Your task to perform on an android device: Go to network settings Image 0: 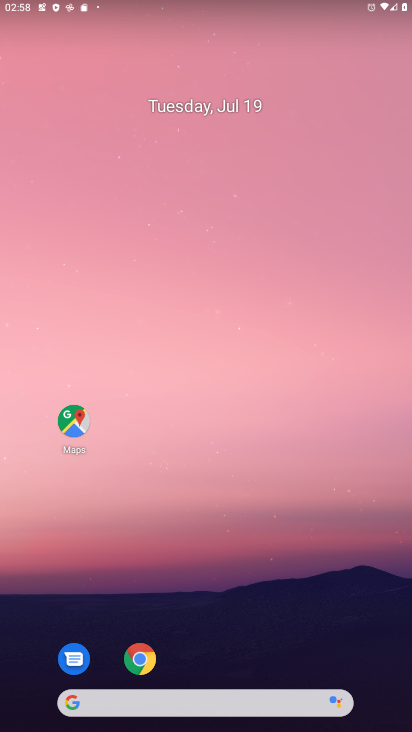
Step 0: drag from (294, 583) to (300, 11)
Your task to perform on an android device: Go to network settings Image 1: 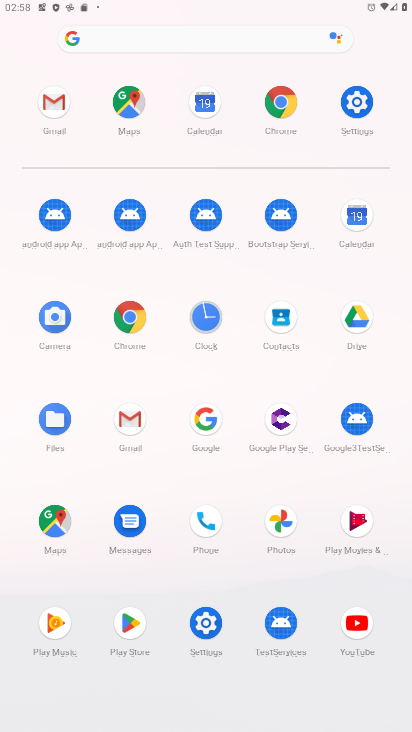
Step 1: click (192, 623)
Your task to perform on an android device: Go to network settings Image 2: 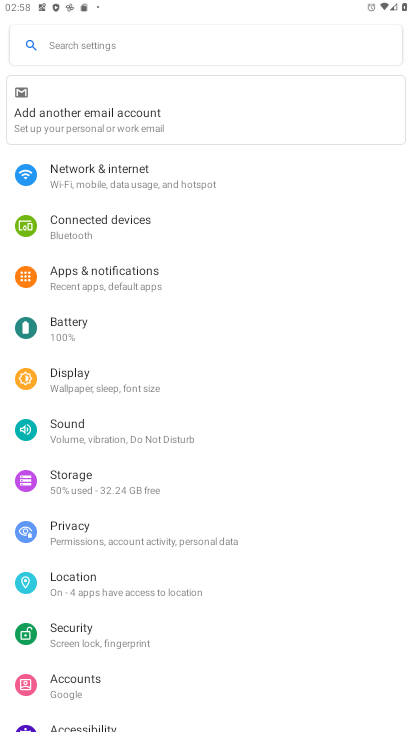
Step 2: click (66, 173)
Your task to perform on an android device: Go to network settings Image 3: 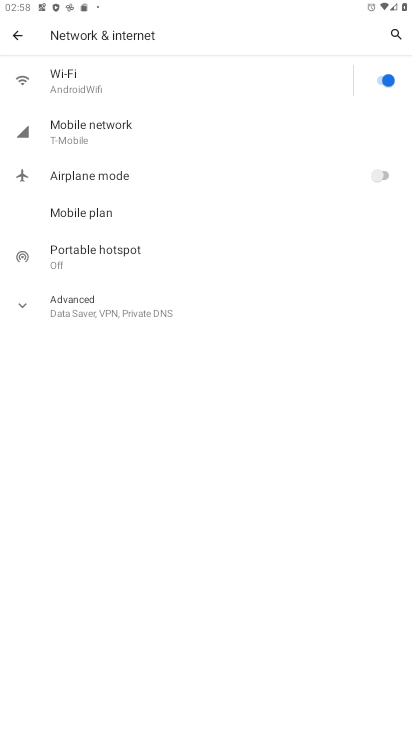
Step 3: task complete